Your task to perform on an android device: What's the US dollar exchange rateagainst the Swiss Franc? Image 0: 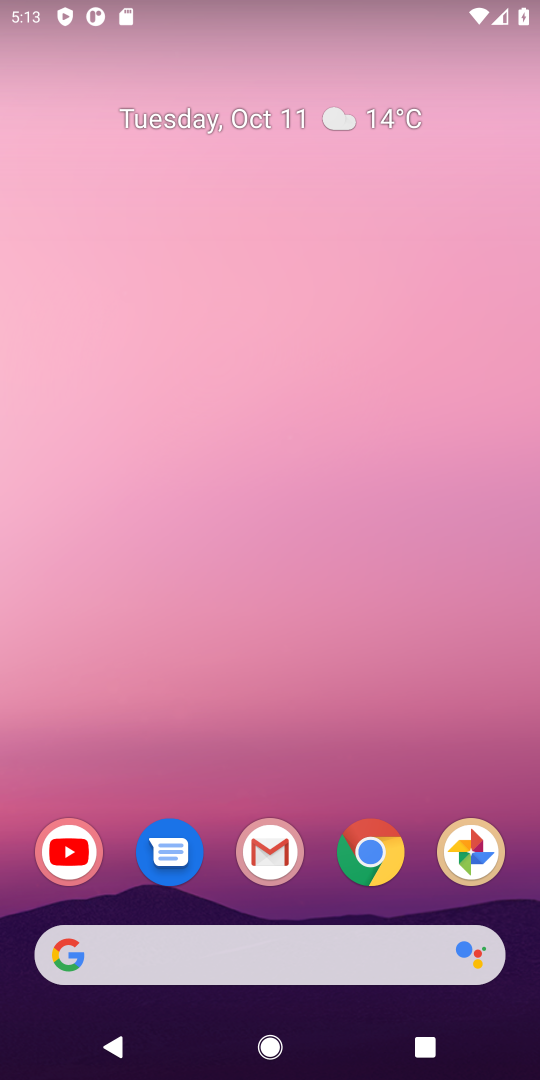
Step 0: click (386, 873)
Your task to perform on an android device: What's the US dollar exchange rateagainst the Swiss Franc? Image 1: 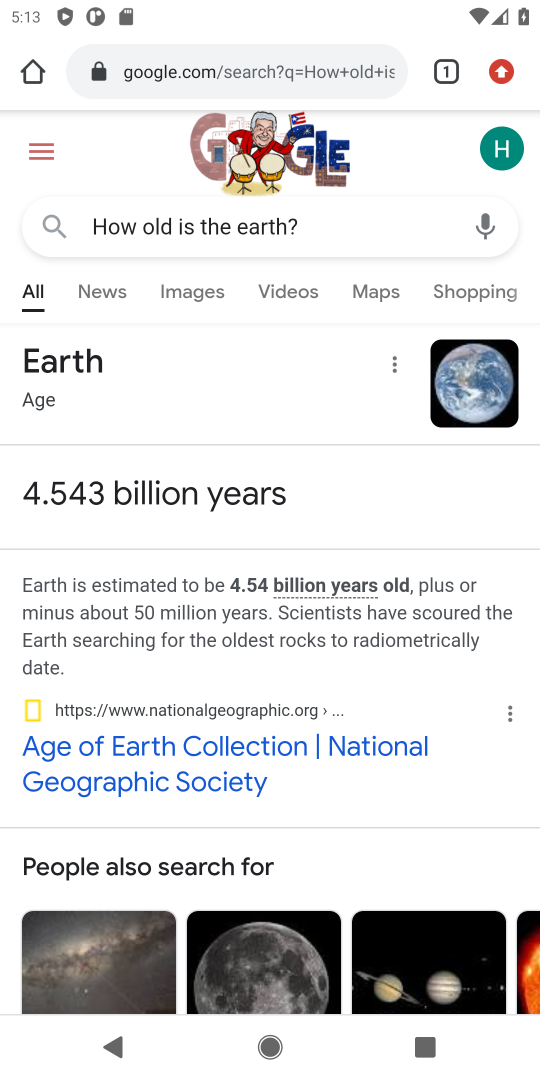
Step 1: click (183, 64)
Your task to perform on an android device: What's the US dollar exchange rateagainst the Swiss Franc? Image 2: 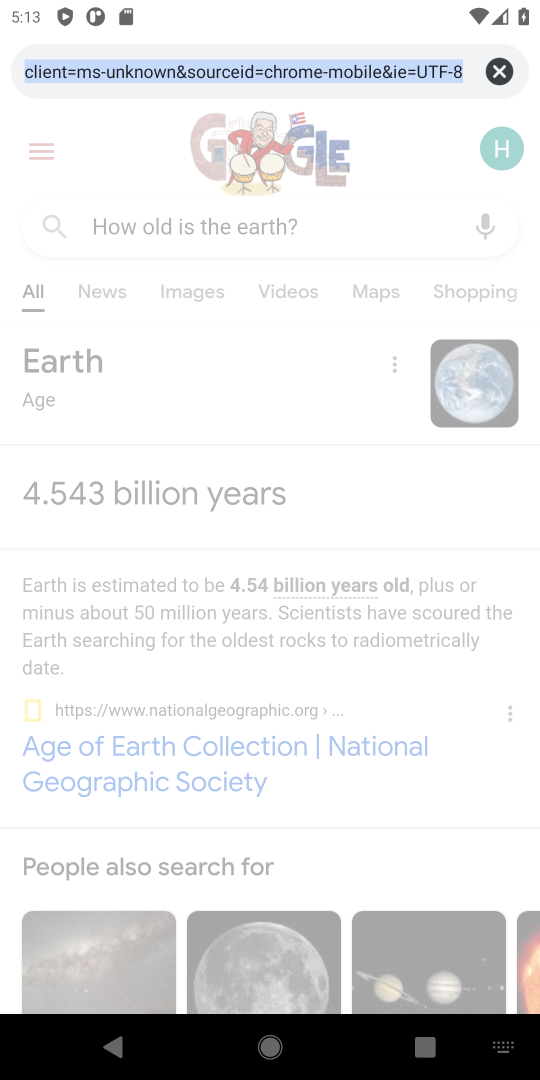
Step 2: type "US dollar exchange rateagainst the Swiss Franc"
Your task to perform on an android device: What's the US dollar exchange rateagainst the Swiss Franc? Image 3: 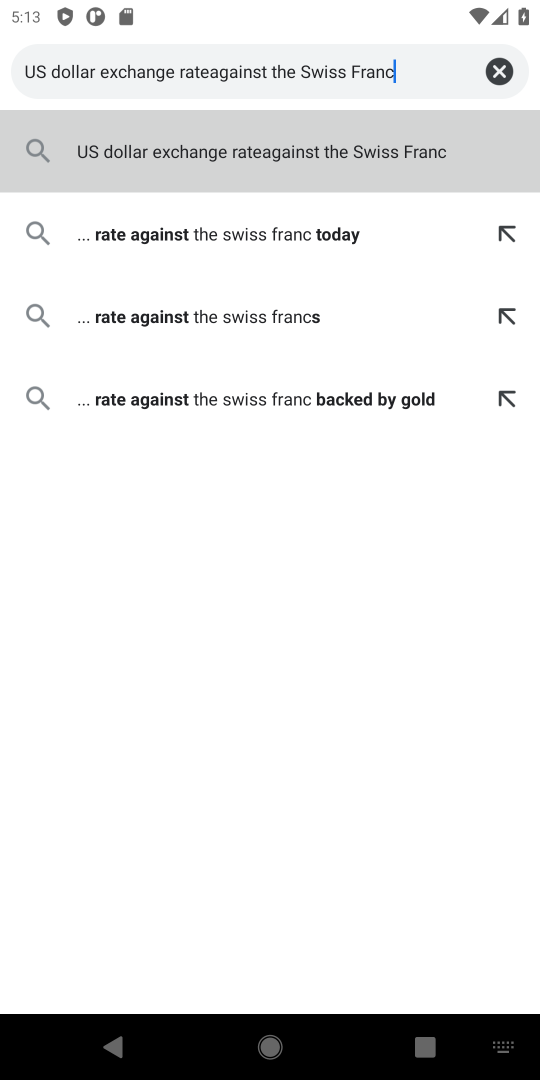
Step 3: click (409, 163)
Your task to perform on an android device: What's the US dollar exchange rateagainst the Swiss Franc? Image 4: 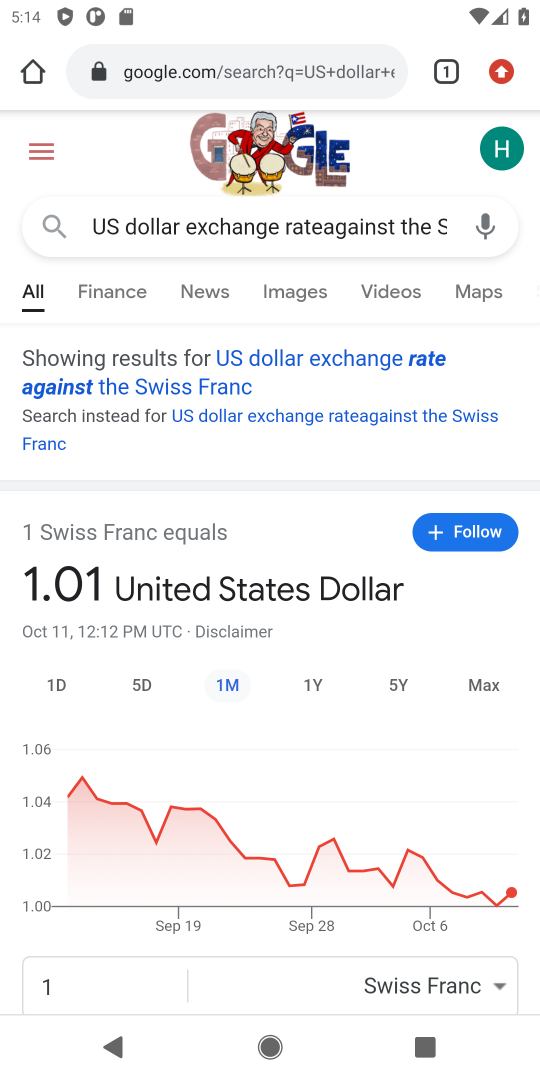
Step 4: task complete